Your task to perform on an android device: Open calendar and show me the first week of next month Image 0: 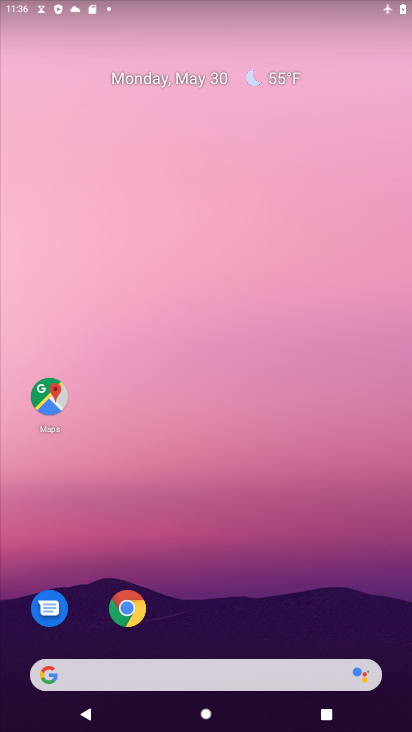
Step 0: drag from (274, 619) to (304, 15)
Your task to perform on an android device: Open calendar and show me the first week of next month Image 1: 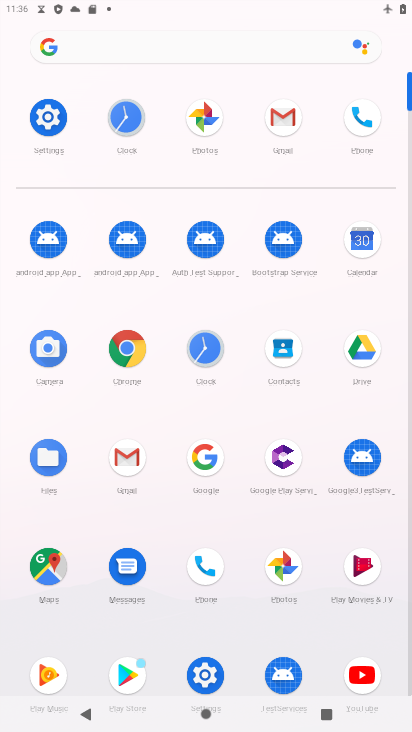
Step 1: click (354, 245)
Your task to perform on an android device: Open calendar and show me the first week of next month Image 2: 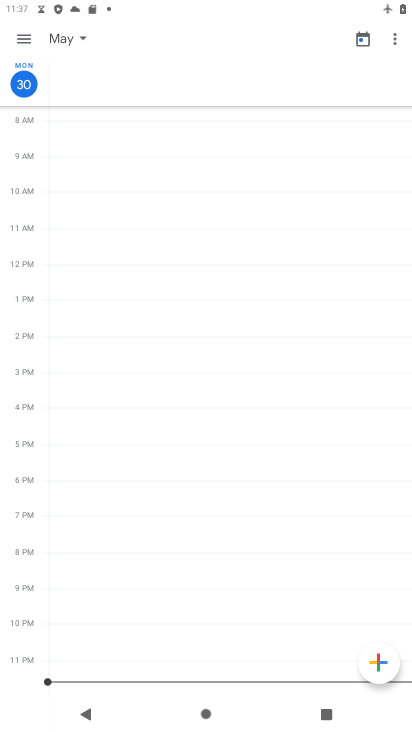
Step 2: click (24, 45)
Your task to perform on an android device: Open calendar and show me the first week of next month Image 3: 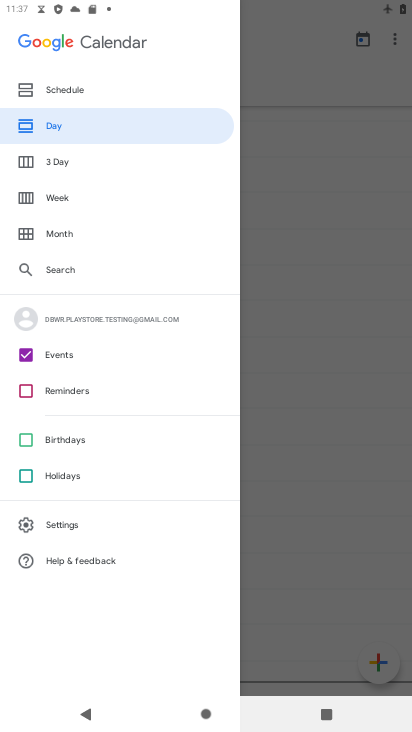
Step 3: click (56, 194)
Your task to perform on an android device: Open calendar and show me the first week of next month Image 4: 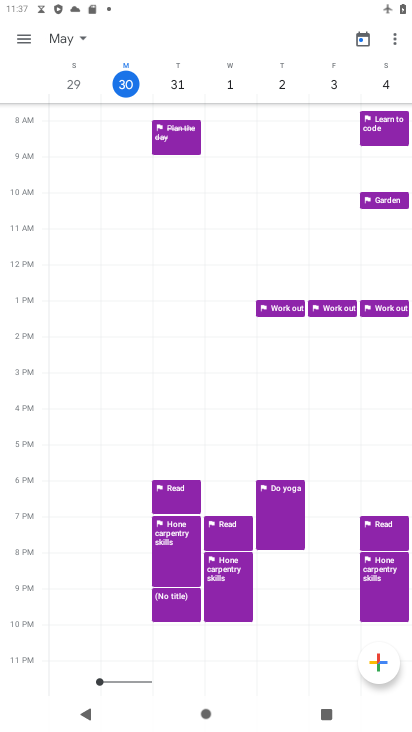
Step 4: task complete